Your task to perform on an android device: What's the weather today? Image 0: 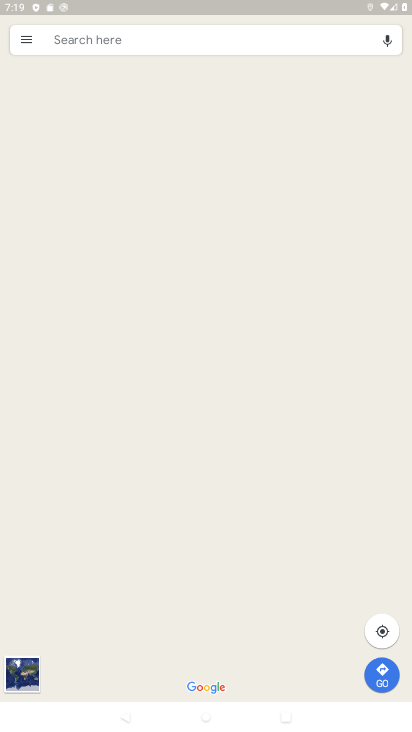
Step 0: press home button
Your task to perform on an android device: What's the weather today? Image 1: 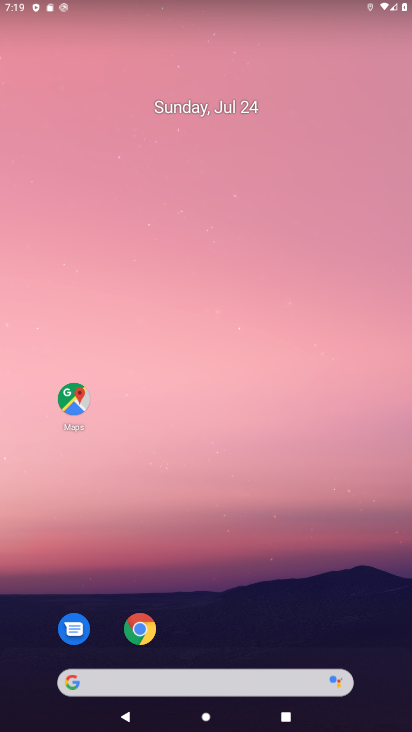
Step 1: click (198, 685)
Your task to perform on an android device: What's the weather today? Image 2: 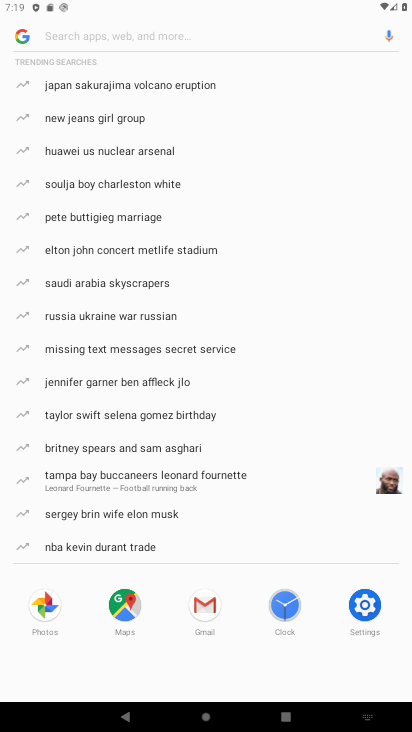
Step 2: type "weather"
Your task to perform on an android device: What's the weather today? Image 3: 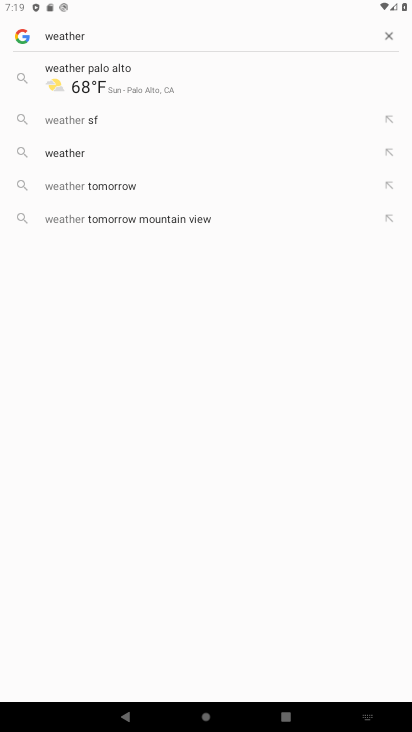
Step 3: click (119, 70)
Your task to perform on an android device: What's the weather today? Image 4: 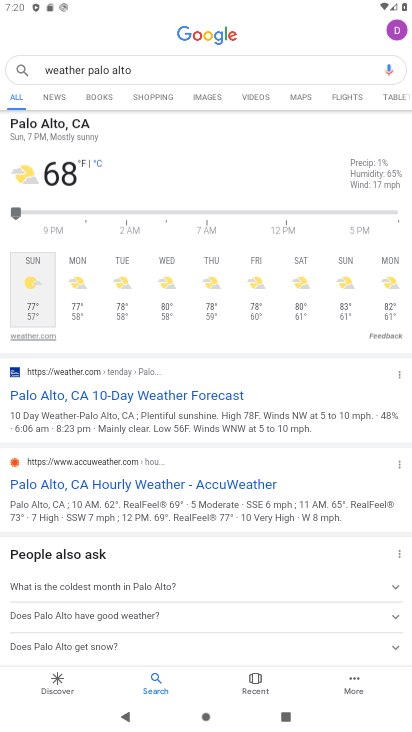
Step 4: click (70, 280)
Your task to perform on an android device: What's the weather today? Image 5: 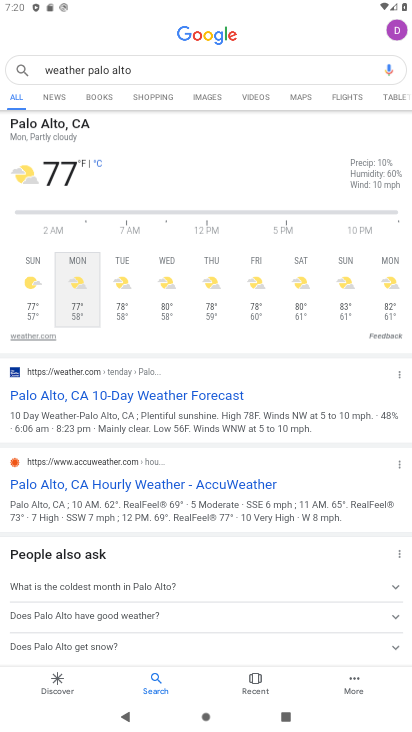
Step 5: task complete